Your task to perform on an android device: Open the stopwatch Image 0: 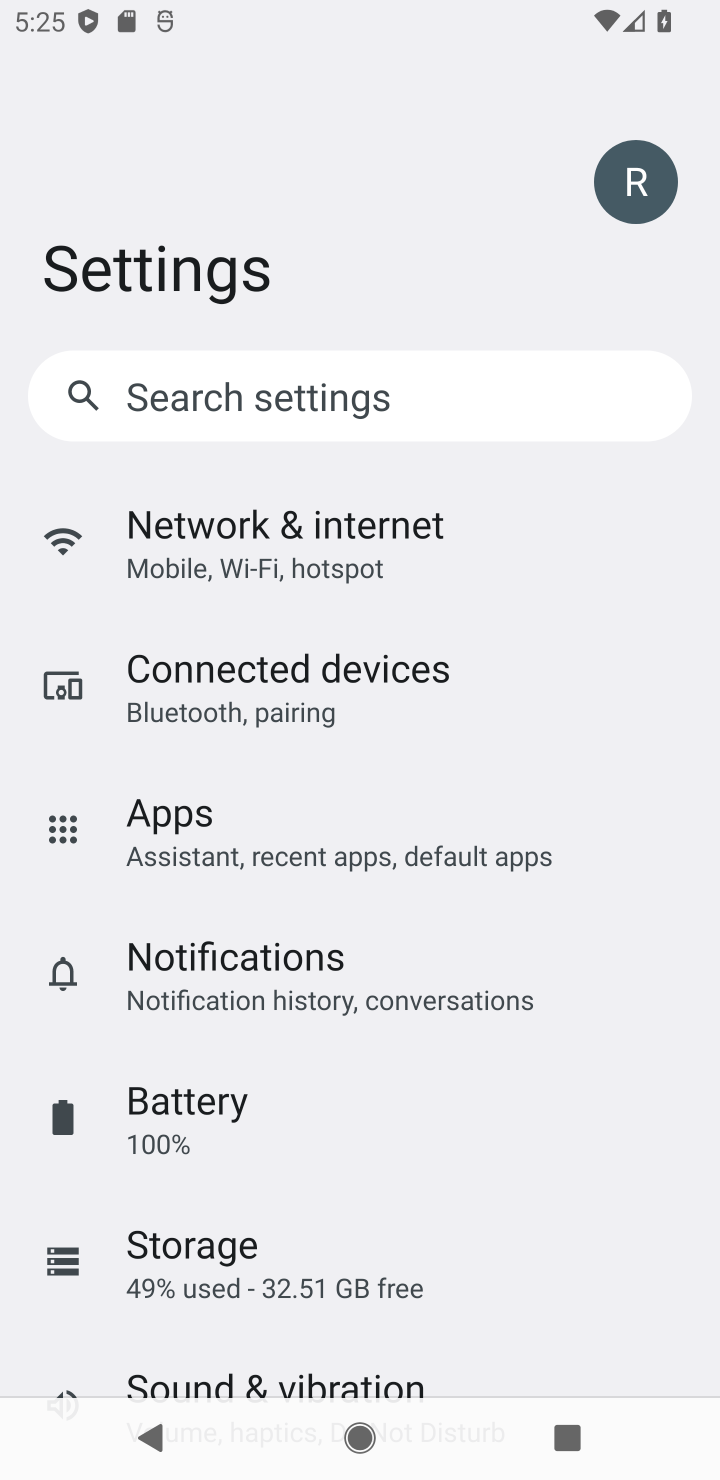
Step 0: press home button
Your task to perform on an android device: Open the stopwatch Image 1: 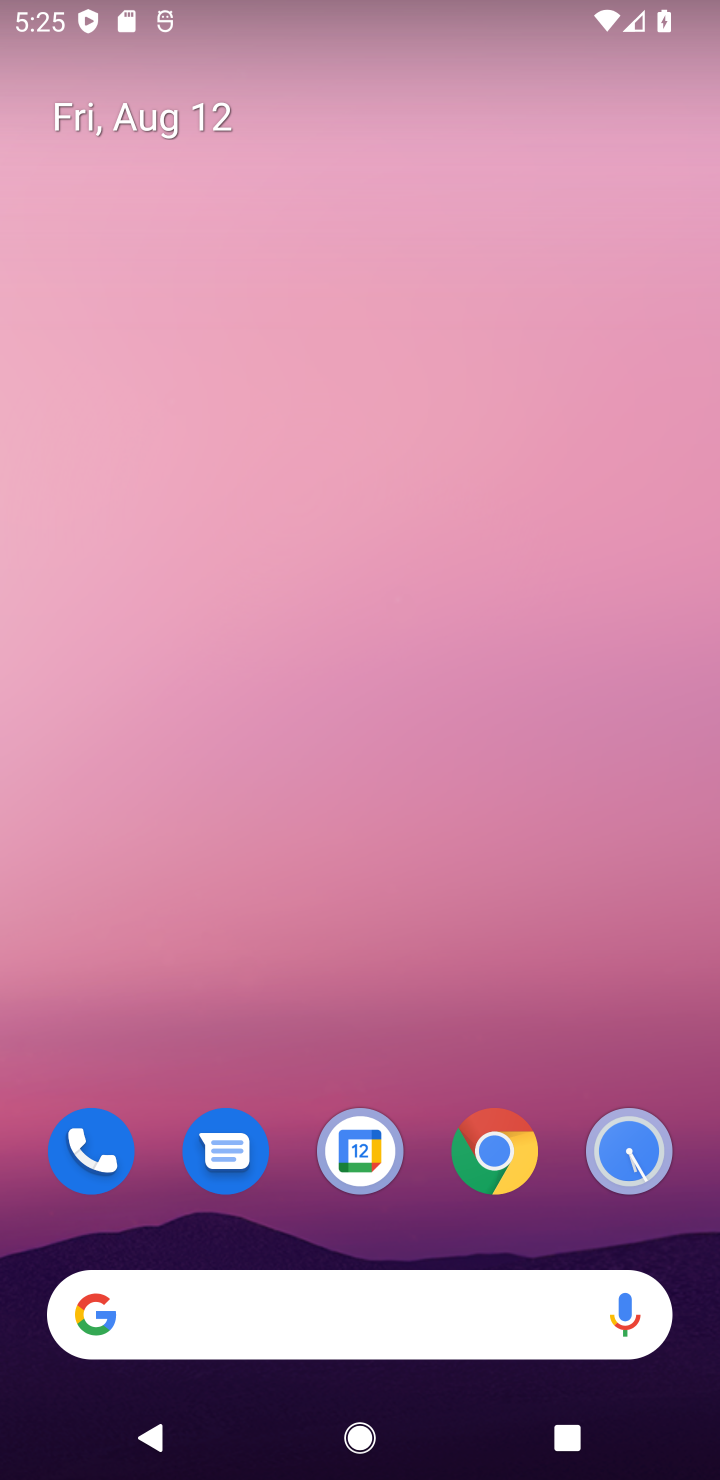
Step 1: drag from (464, 985) to (548, 84)
Your task to perform on an android device: Open the stopwatch Image 2: 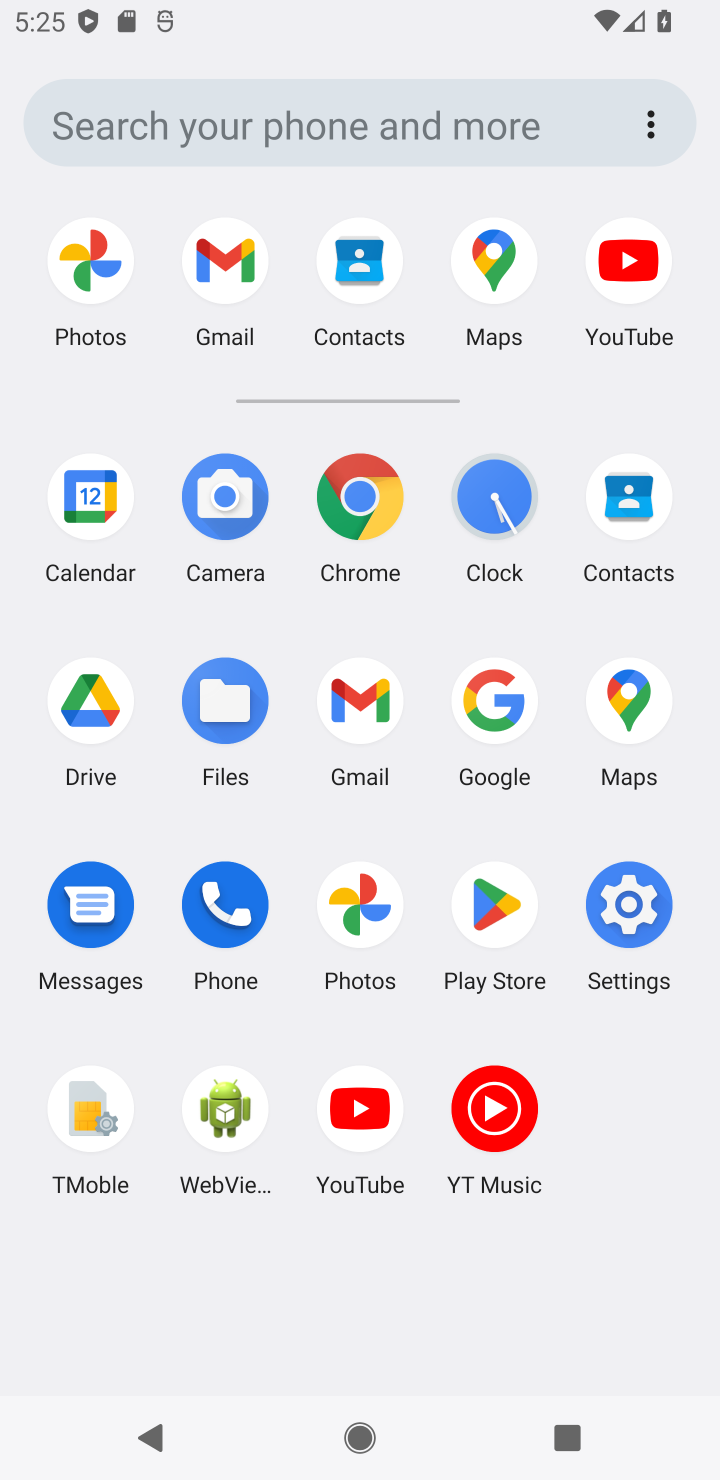
Step 2: click (496, 482)
Your task to perform on an android device: Open the stopwatch Image 3: 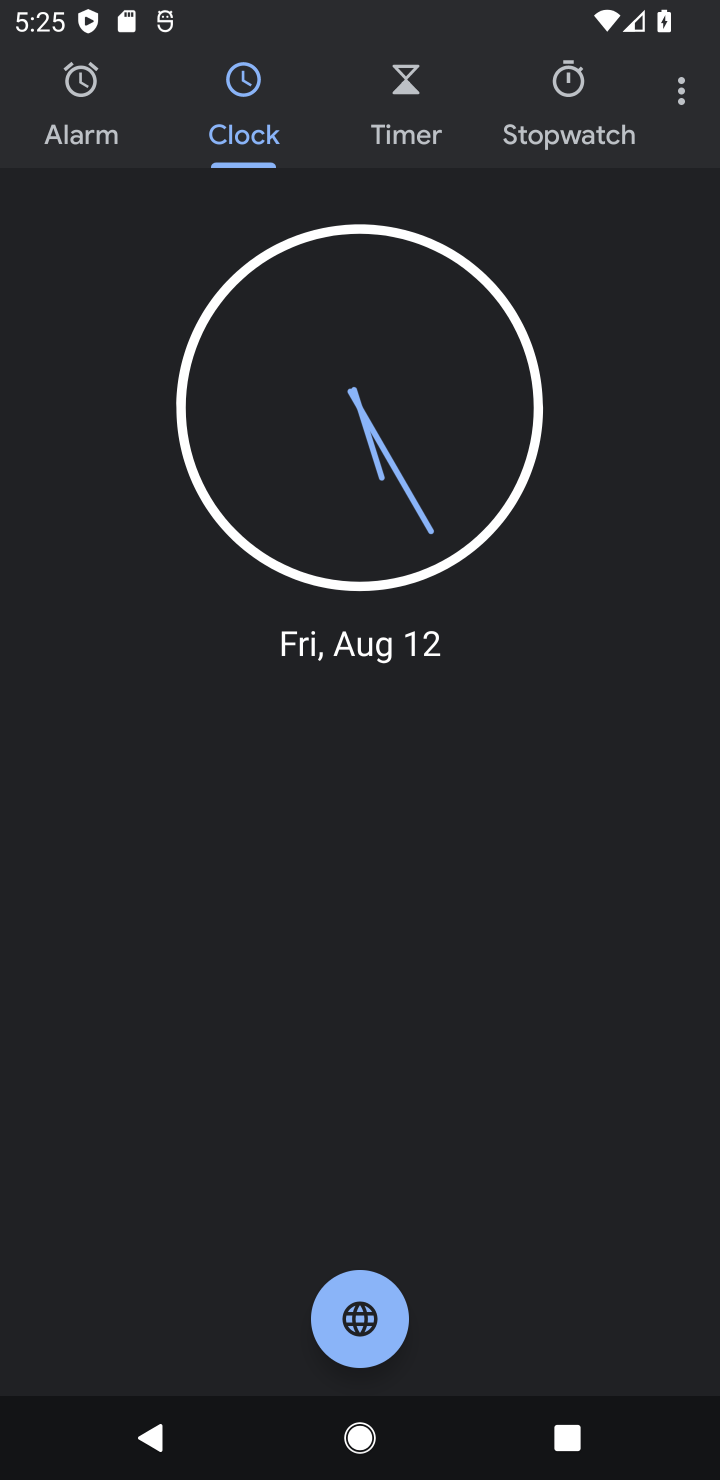
Step 3: click (595, 123)
Your task to perform on an android device: Open the stopwatch Image 4: 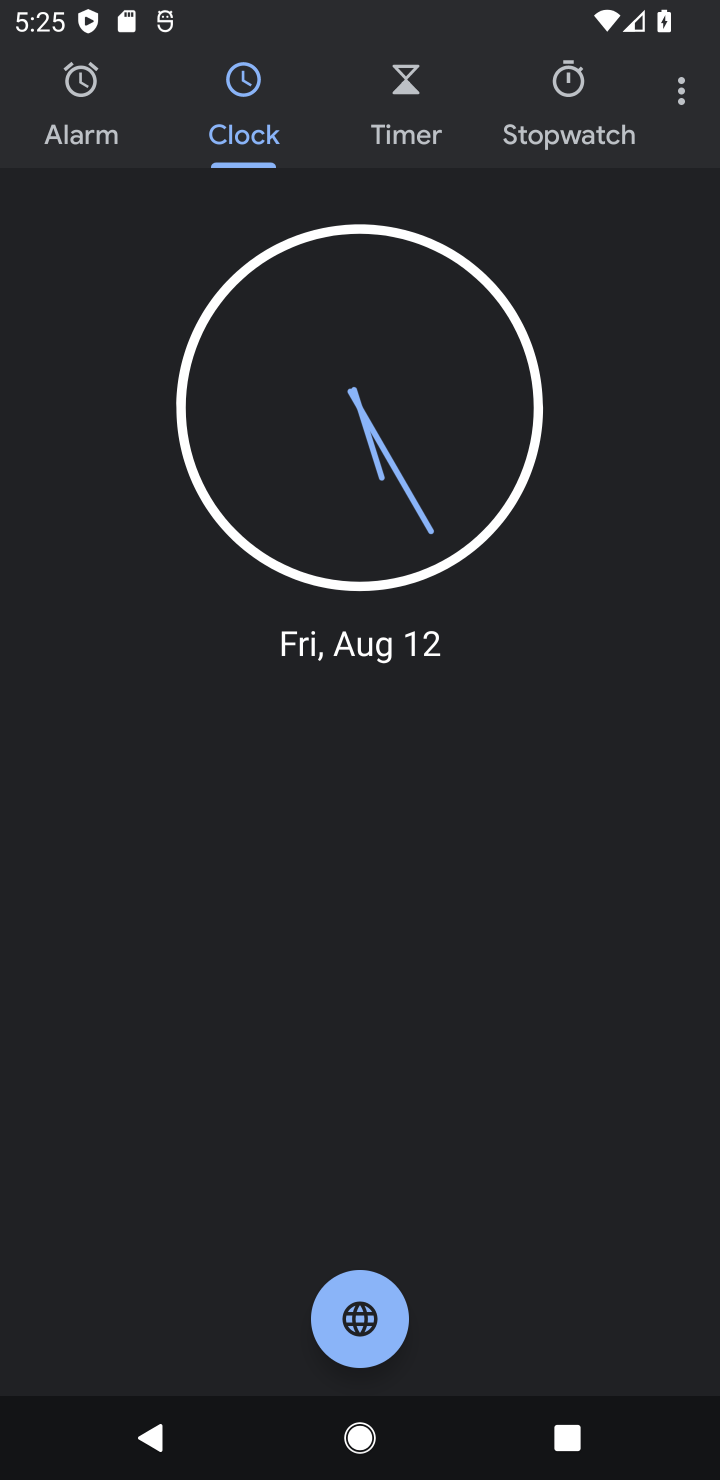
Step 4: click (595, 123)
Your task to perform on an android device: Open the stopwatch Image 5: 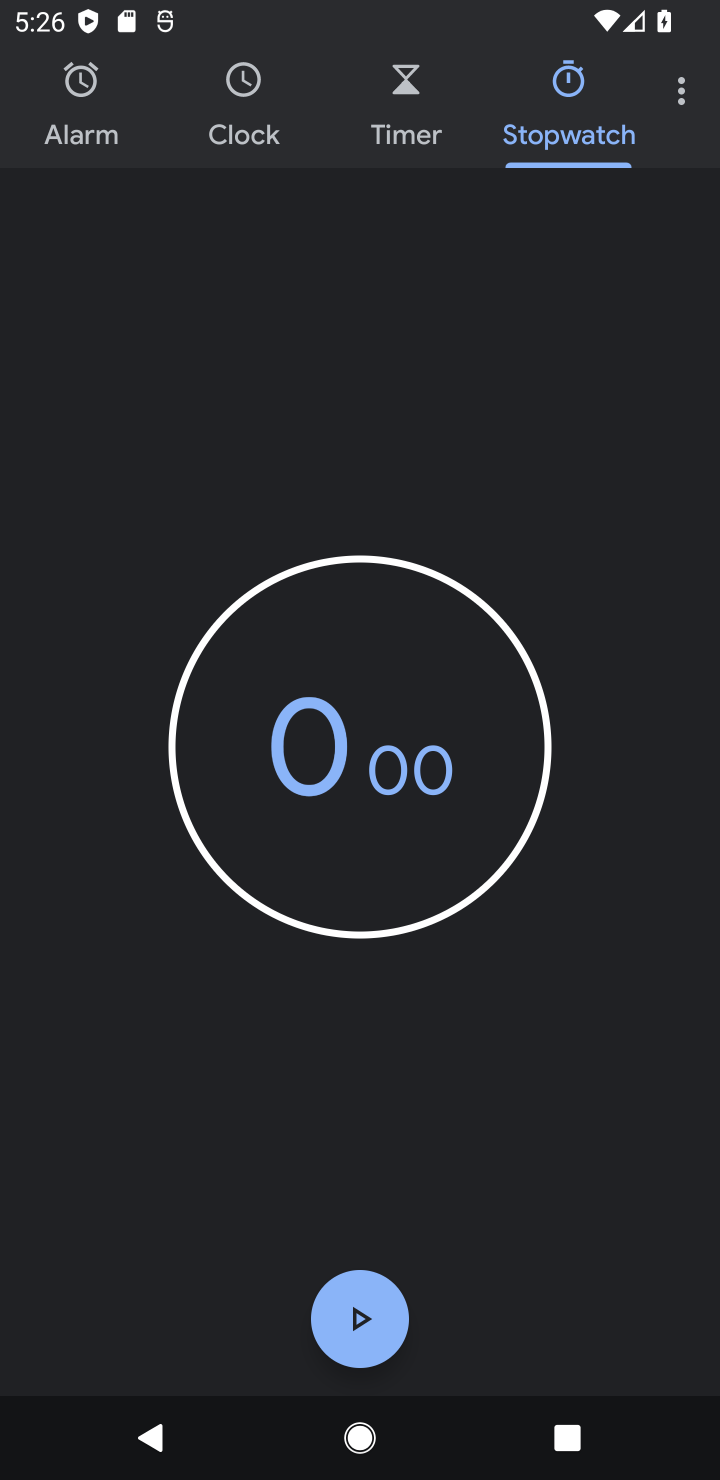
Step 5: task complete